Your task to perform on an android device: stop showing notifications on the lock screen Image 0: 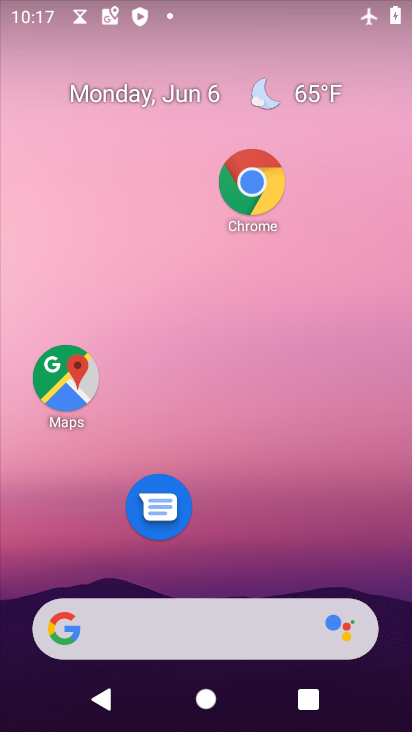
Step 0: click (256, 180)
Your task to perform on an android device: stop showing notifications on the lock screen Image 1: 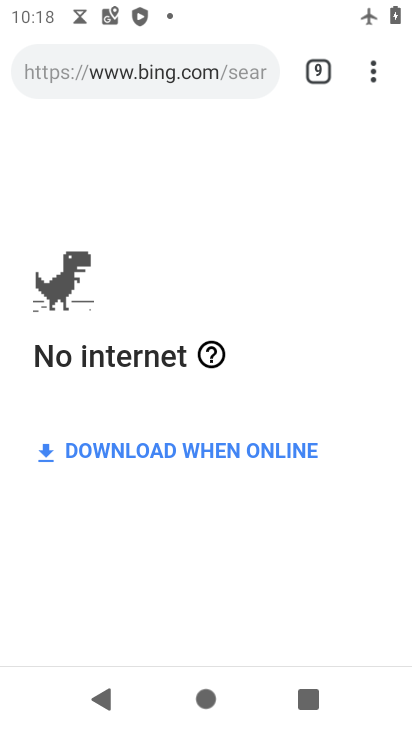
Step 1: click (379, 49)
Your task to perform on an android device: stop showing notifications on the lock screen Image 2: 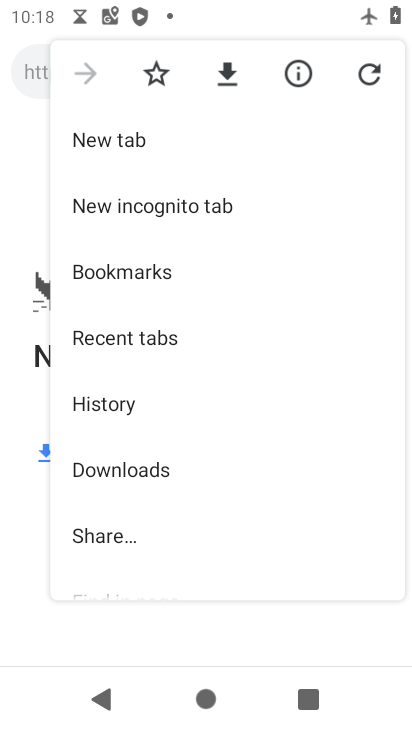
Step 2: press home button
Your task to perform on an android device: stop showing notifications on the lock screen Image 3: 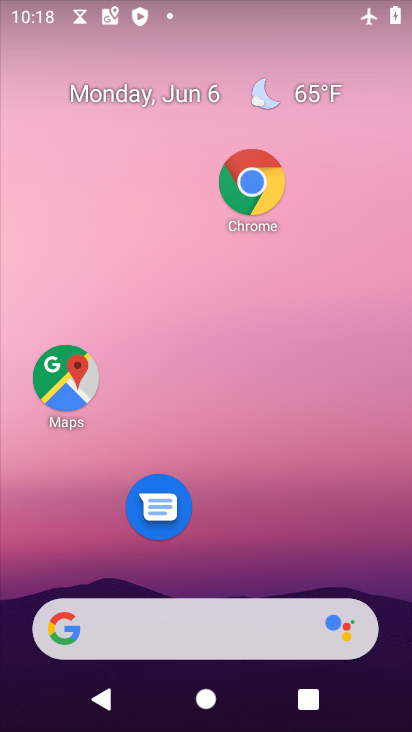
Step 3: drag from (259, 546) to (298, 131)
Your task to perform on an android device: stop showing notifications on the lock screen Image 4: 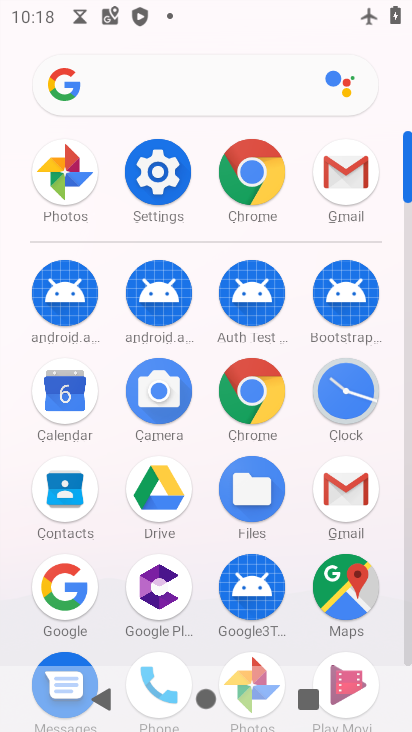
Step 4: click (160, 168)
Your task to perform on an android device: stop showing notifications on the lock screen Image 5: 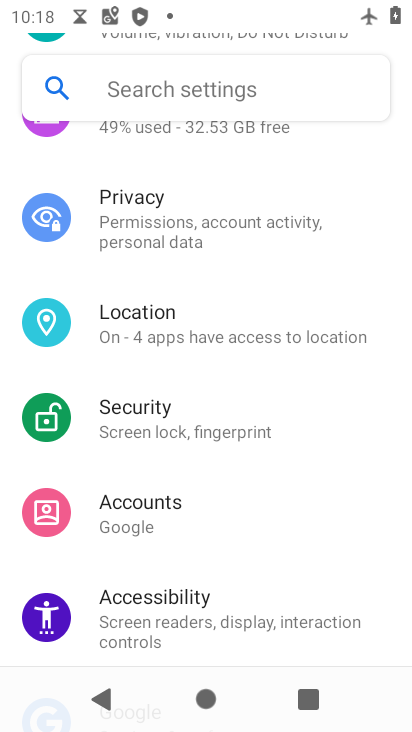
Step 5: drag from (193, 197) to (237, 507)
Your task to perform on an android device: stop showing notifications on the lock screen Image 6: 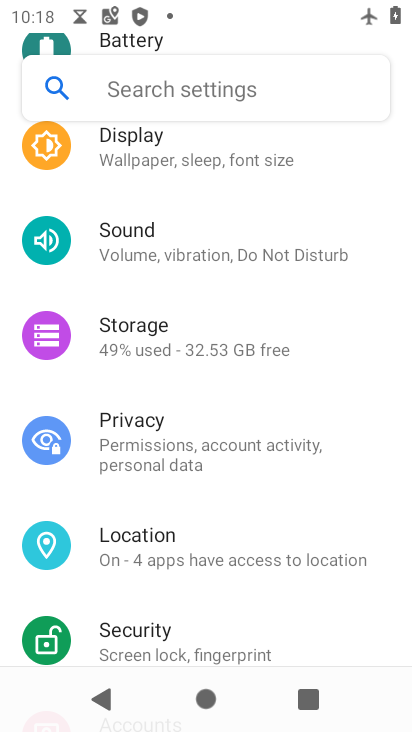
Step 6: drag from (234, 147) to (253, 514)
Your task to perform on an android device: stop showing notifications on the lock screen Image 7: 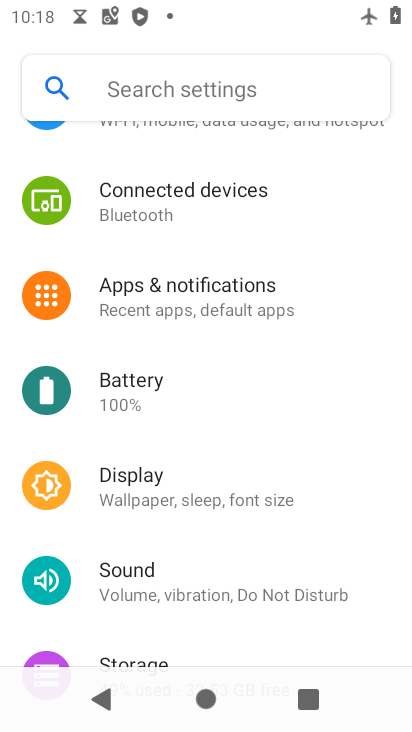
Step 7: click (206, 293)
Your task to perform on an android device: stop showing notifications on the lock screen Image 8: 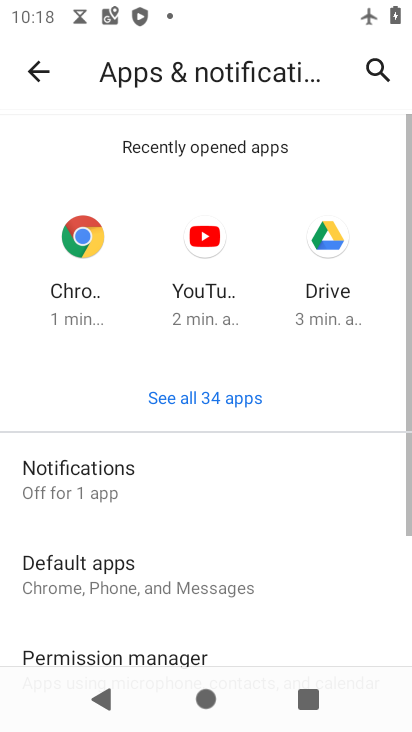
Step 8: click (117, 485)
Your task to perform on an android device: stop showing notifications on the lock screen Image 9: 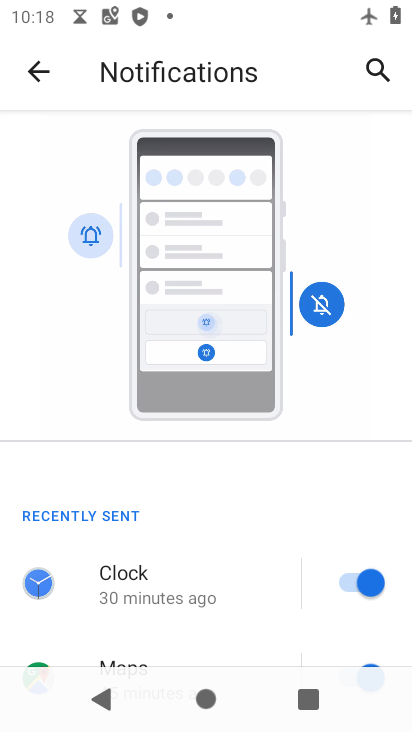
Step 9: drag from (254, 625) to (308, 227)
Your task to perform on an android device: stop showing notifications on the lock screen Image 10: 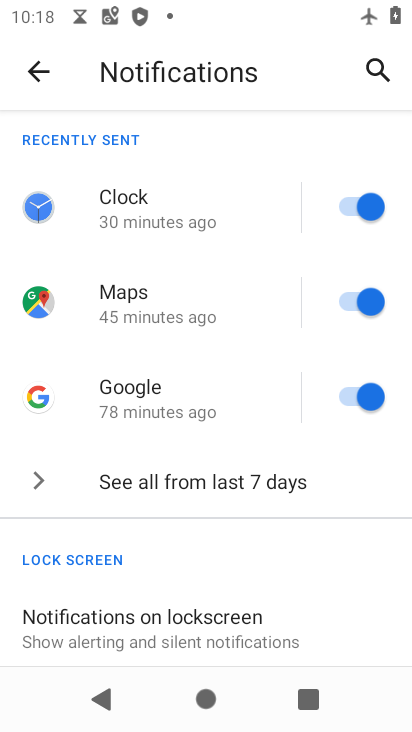
Step 10: click (170, 625)
Your task to perform on an android device: stop showing notifications on the lock screen Image 11: 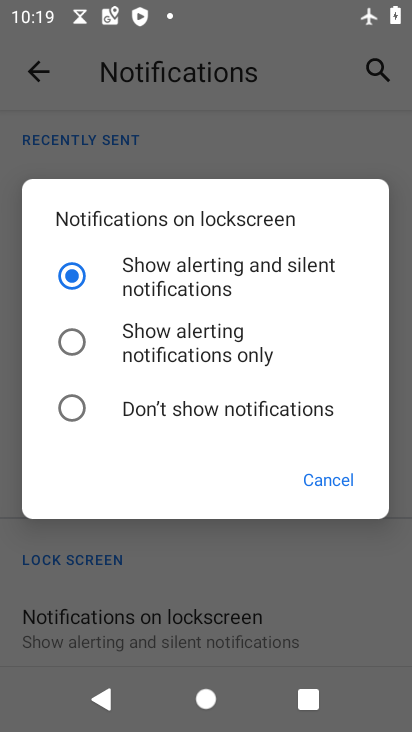
Step 11: click (101, 403)
Your task to perform on an android device: stop showing notifications on the lock screen Image 12: 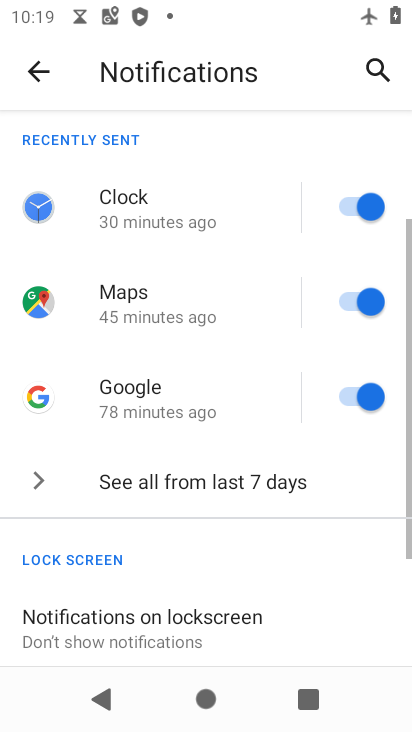
Step 12: task complete